Your task to perform on an android device: Open network settings Image 0: 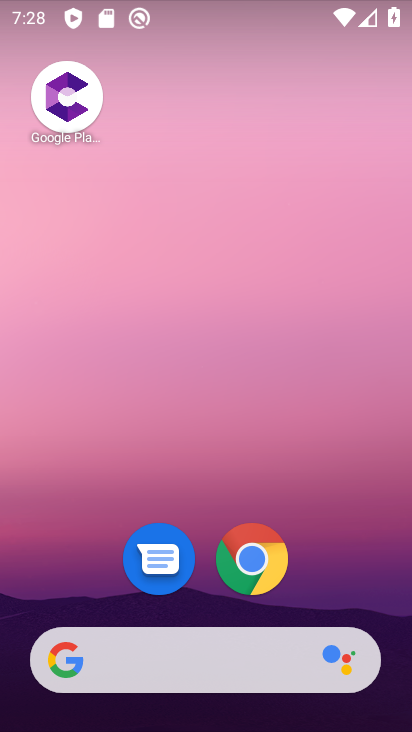
Step 0: drag from (252, 725) to (261, 1)
Your task to perform on an android device: Open network settings Image 1: 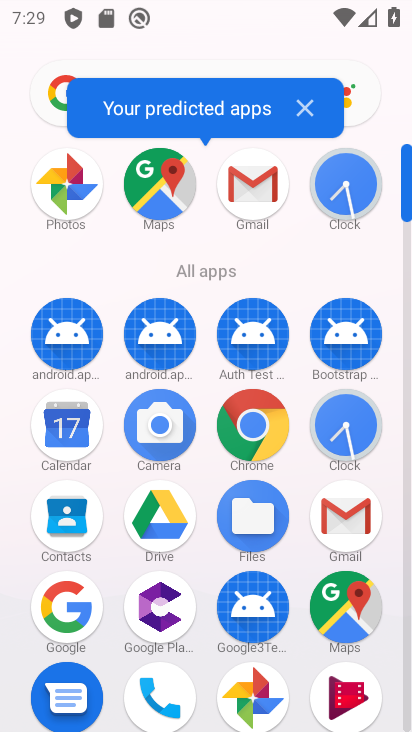
Step 1: drag from (203, 606) to (236, 26)
Your task to perform on an android device: Open network settings Image 2: 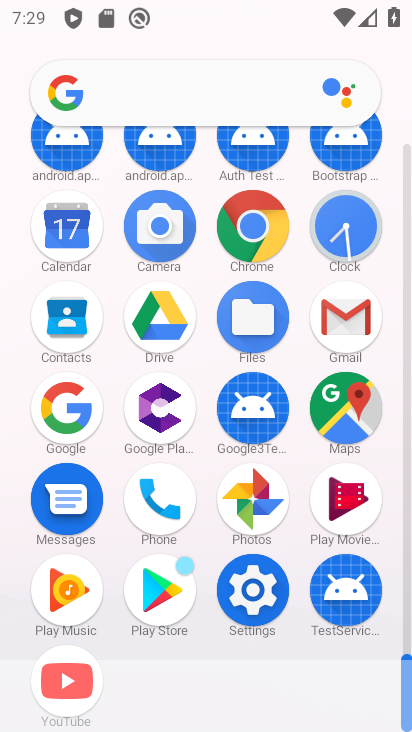
Step 2: click (240, 593)
Your task to perform on an android device: Open network settings Image 3: 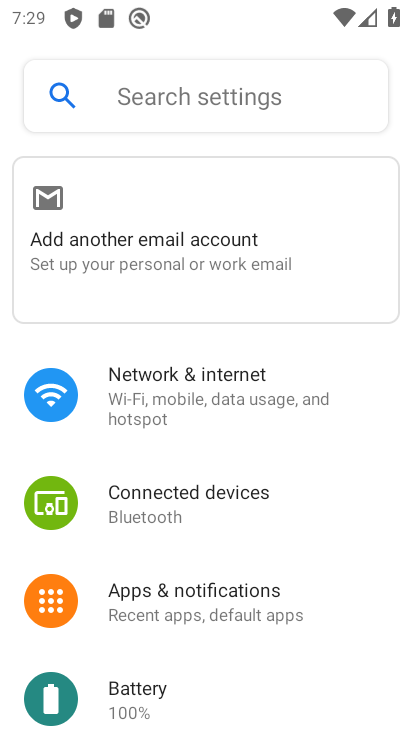
Step 3: click (231, 398)
Your task to perform on an android device: Open network settings Image 4: 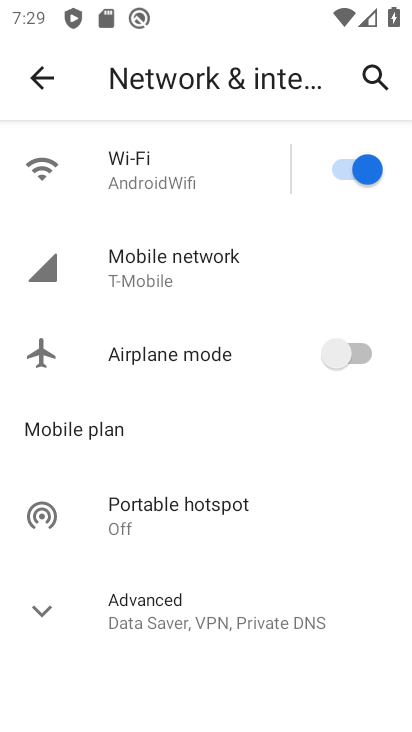
Step 4: task complete